Your task to perform on an android device: Go to notification settings Image 0: 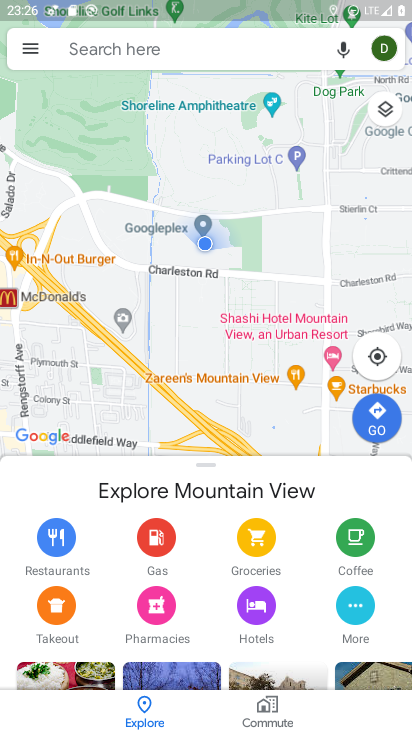
Step 0: press home button
Your task to perform on an android device: Go to notification settings Image 1: 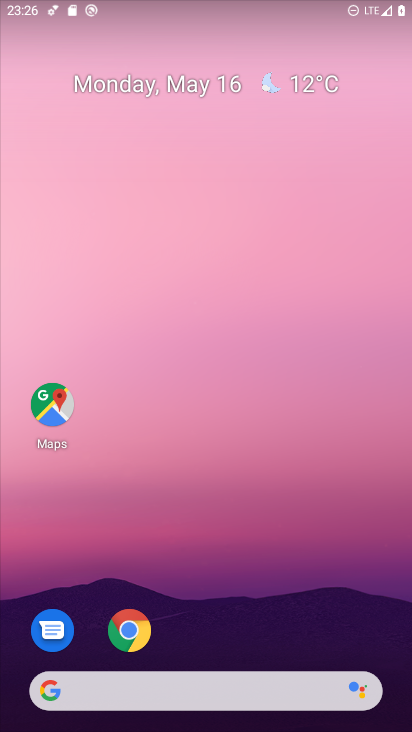
Step 1: drag from (232, 583) to (251, 221)
Your task to perform on an android device: Go to notification settings Image 2: 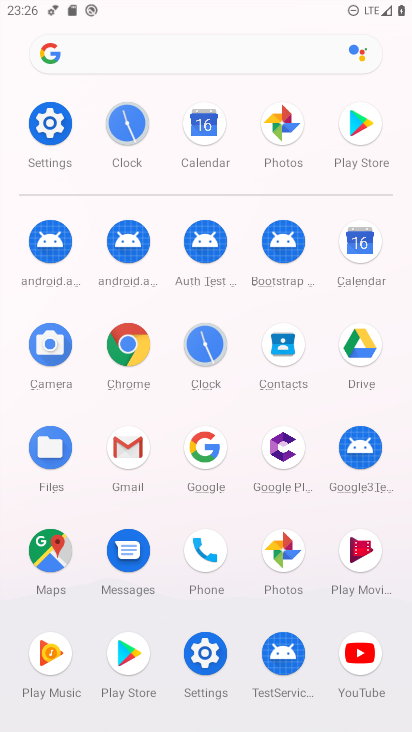
Step 2: click (40, 119)
Your task to perform on an android device: Go to notification settings Image 3: 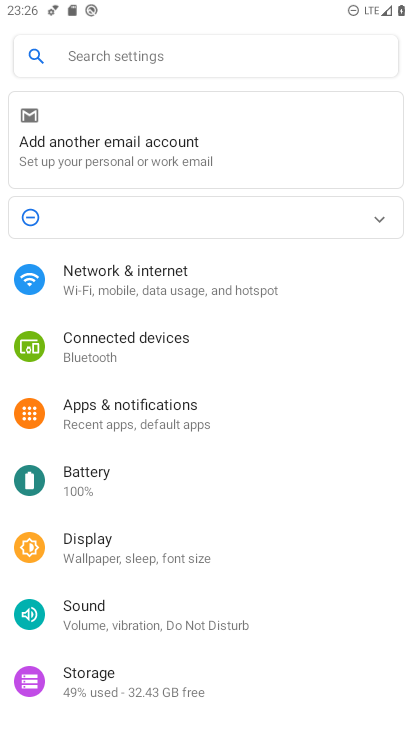
Step 3: click (219, 408)
Your task to perform on an android device: Go to notification settings Image 4: 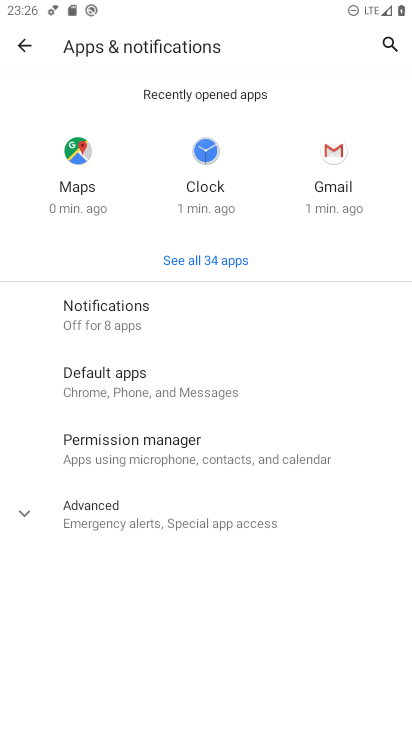
Step 4: click (185, 320)
Your task to perform on an android device: Go to notification settings Image 5: 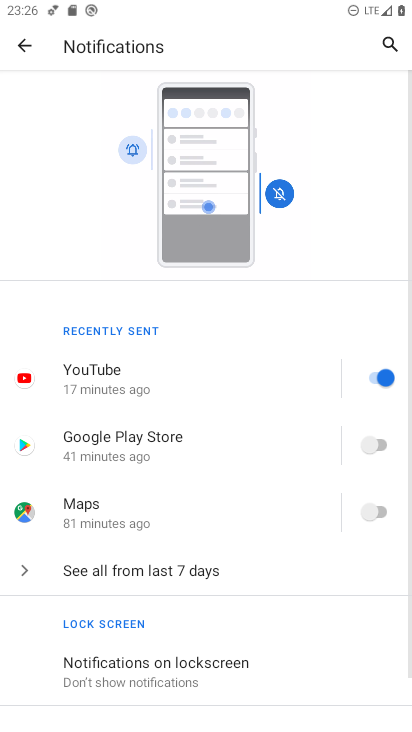
Step 5: task complete